Your task to perform on an android device: Search for seafood restaurants on Google Maps Image 0: 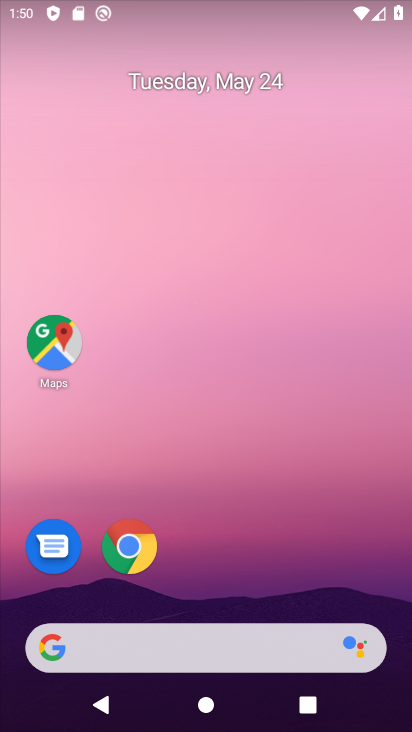
Step 0: click (50, 337)
Your task to perform on an android device: Search for seafood restaurants on Google Maps Image 1: 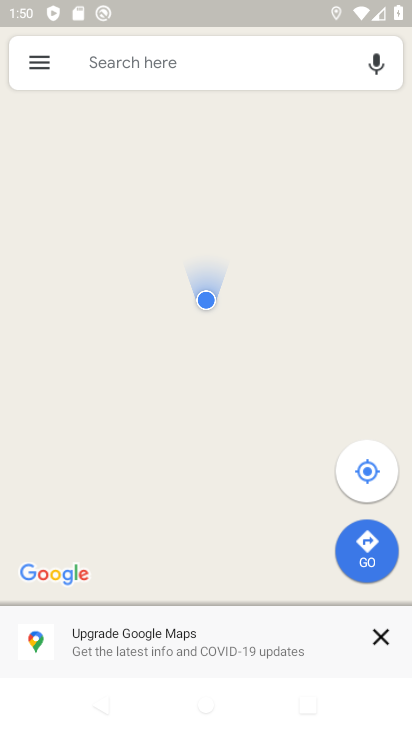
Step 1: click (143, 83)
Your task to perform on an android device: Search for seafood restaurants on Google Maps Image 2: 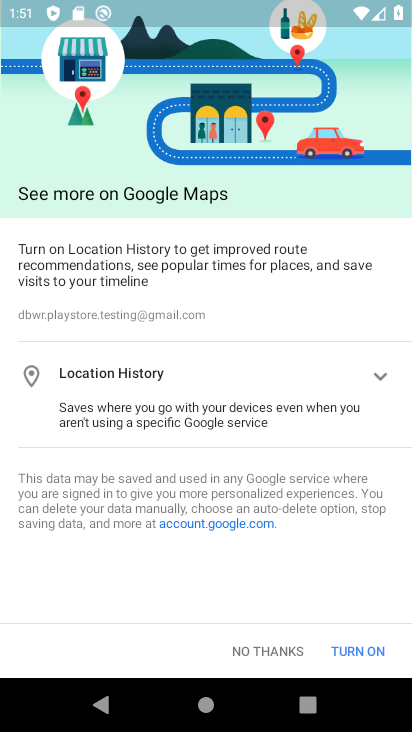
Step 2: click (277, 652)
Your task to perform on an android device: Search for seafood restaurants on Google Maps Image 3: 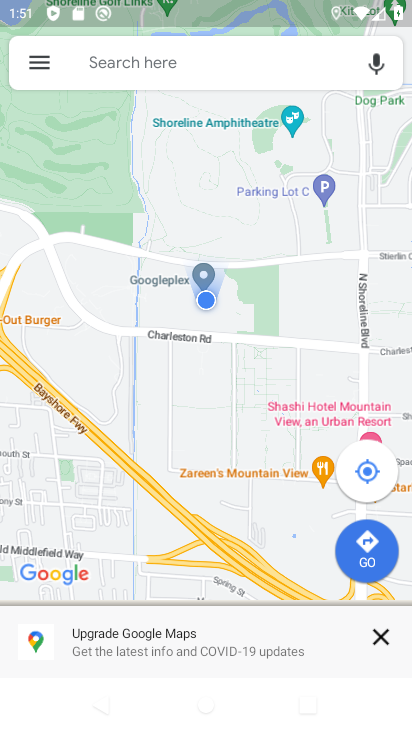
Step 3: click (136, 48)
Your task to perform on an android device: Search for seafood restaurants on Google Maps Image 4: 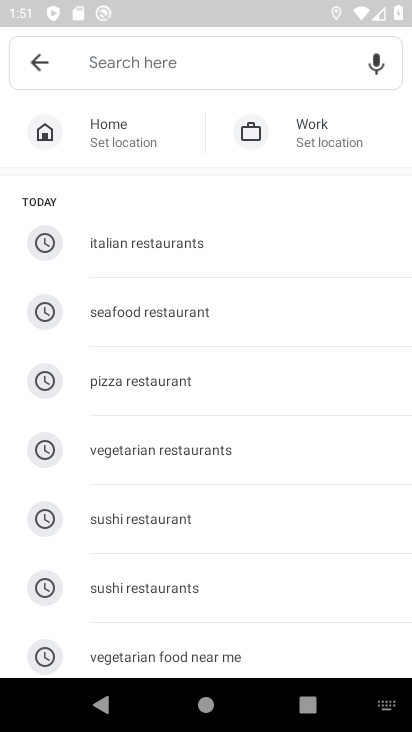
Step 4: type "seafood restaurants"
Your task to perform on an android device: Search for seafood restaurants on Google Maps Image 5: 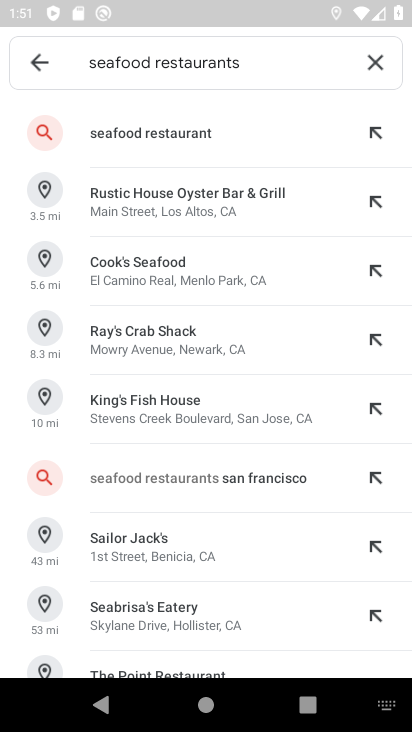
Step 5: click (201, 140)
Your task to perform on an android device: Search for seafood restaurants on Google Maps Image 6: 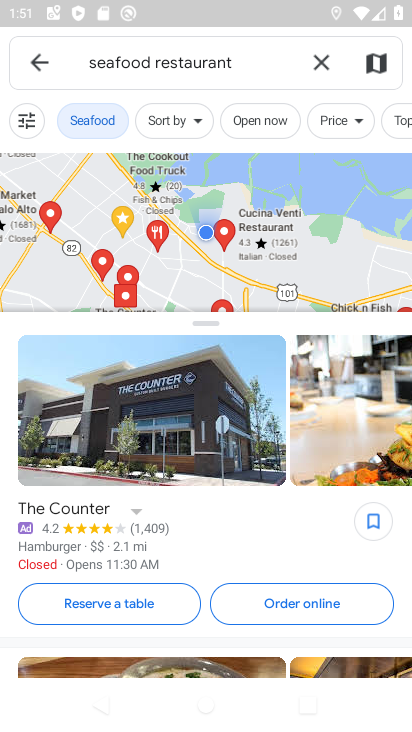
Step 6: task complete